Your task to perform on an android device: Go to notification settings Image 0: 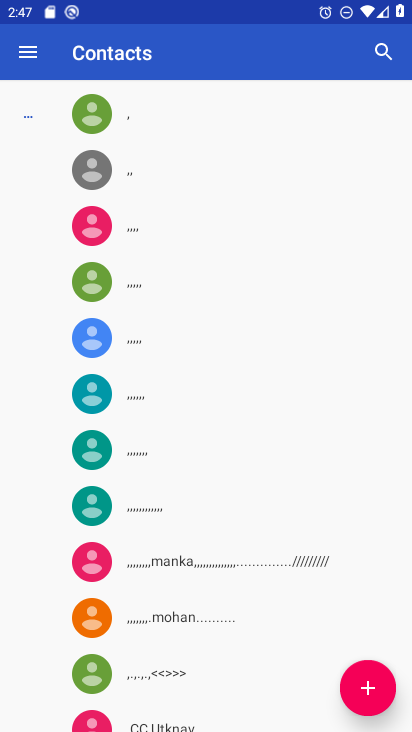
Step 0: task complete